Your task to perform on an android device: change notifications settings Image 0: 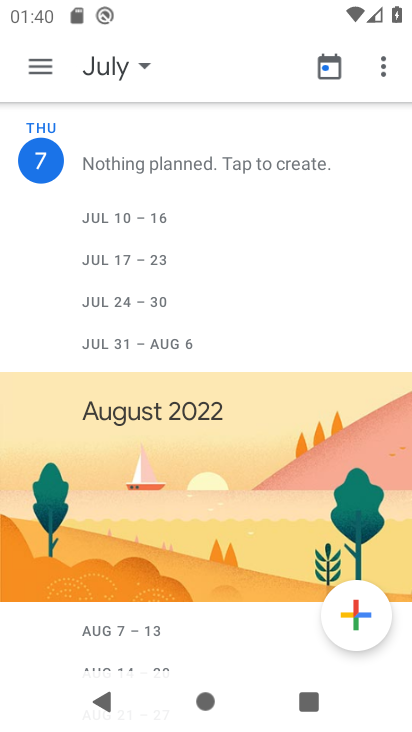
Step 0: press home button
Your task to perform on an android device: change notifications settings Image 1: 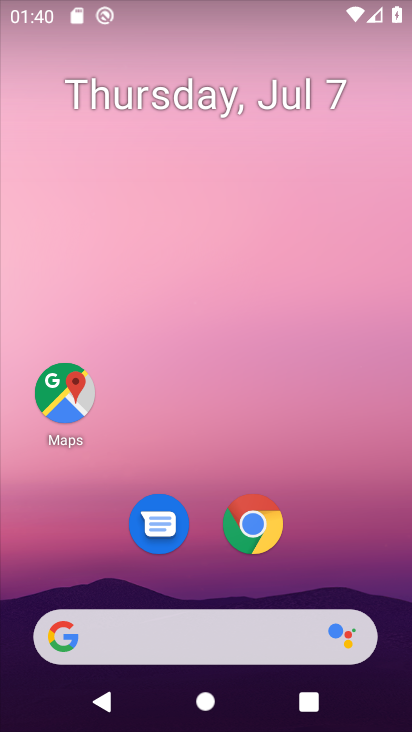
Step 1: drag from (318, 563) to (335, 43)
Your task to perform on an android device: change notifications settings Image 2: 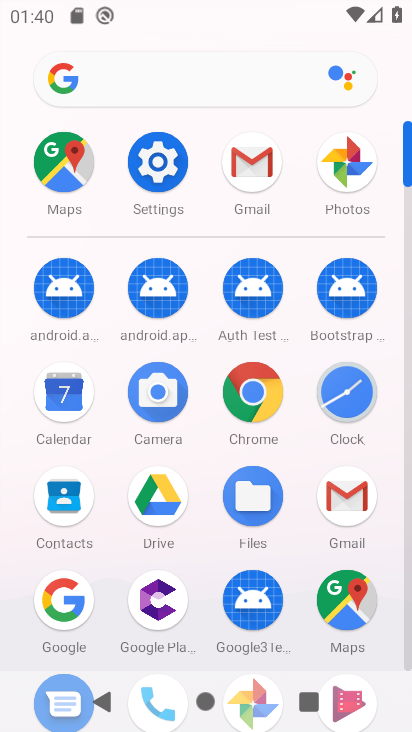
Step 2: click (161, 163)
Your task to perform on an android device: change notifications settings Image 3: 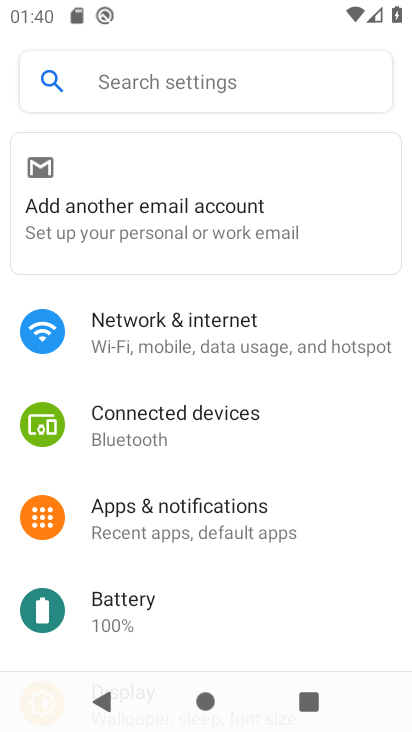
Step 3: click (170, 515)
Your task to perform on an android device: change notifications settings Image 4: 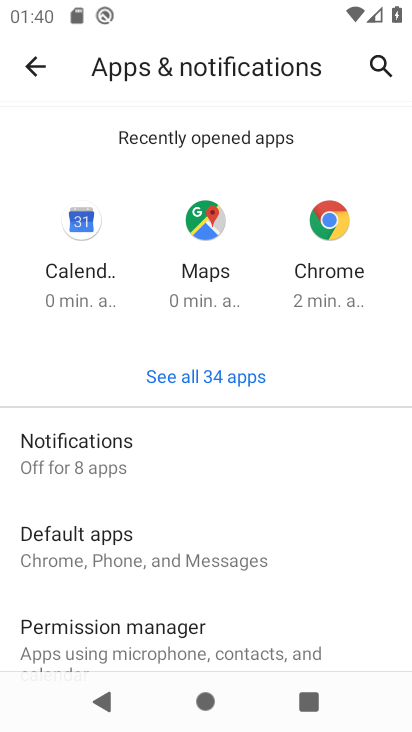
Step 4: click (112, 445)
Your task to perform on an android device: change notifications settings Image 5: 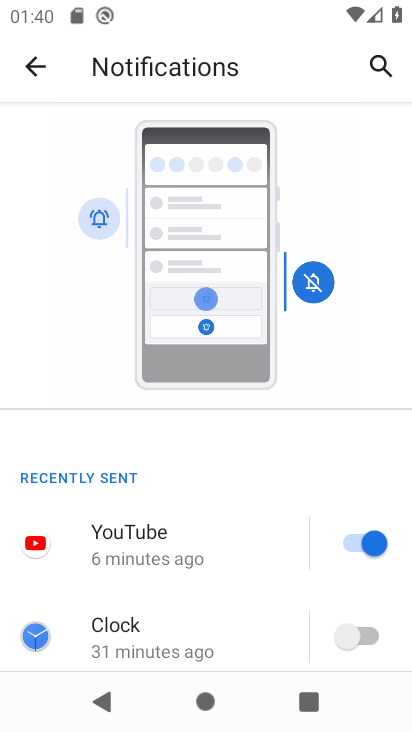
Step 5: drag from (242, 594) to (262, 214)
Your task to perform on an android device: change notifications settings Image 6: 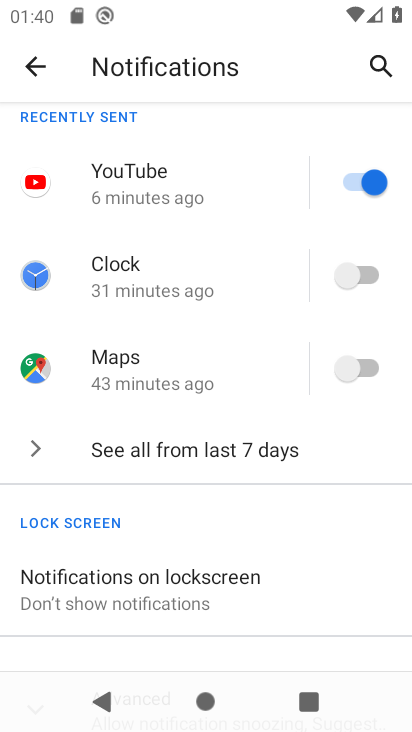
Step 6: click (253, 450)
Your task to perform on an android device: change notifications settings Image 7: 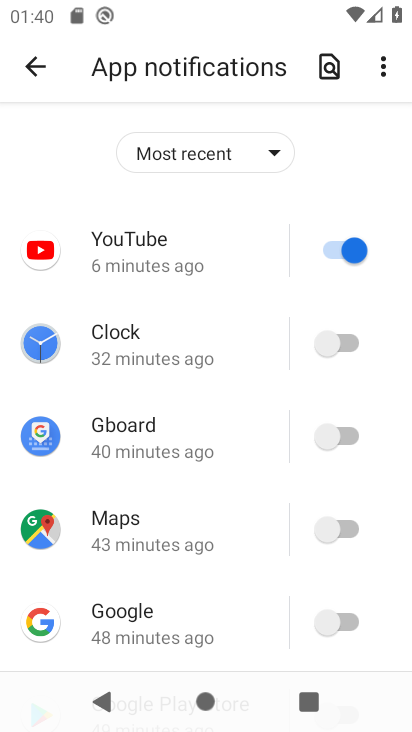
Step 7: click (343, 241)
Your task to perform on an android device: change notifications settings Image 8: 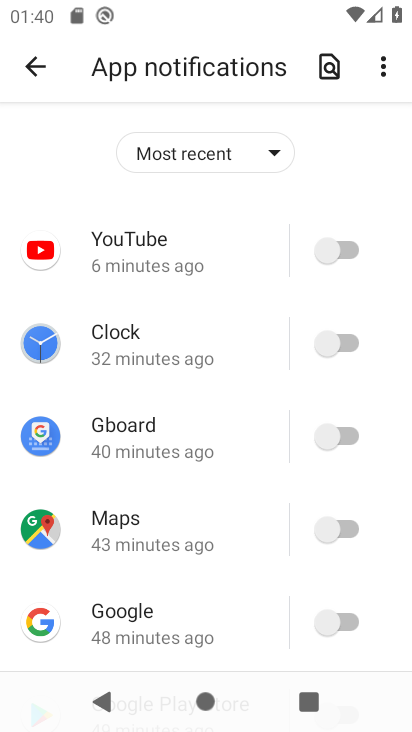
Step 8: click (335, 340)
Your task to perform on an android device: change notifications settings Image 9: 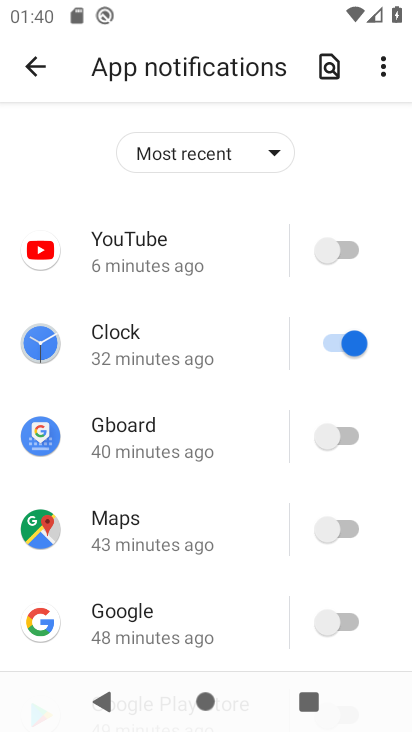
Step 9: click (333, 438)
Your task to perform on an android device: change notifications settings Image 10: 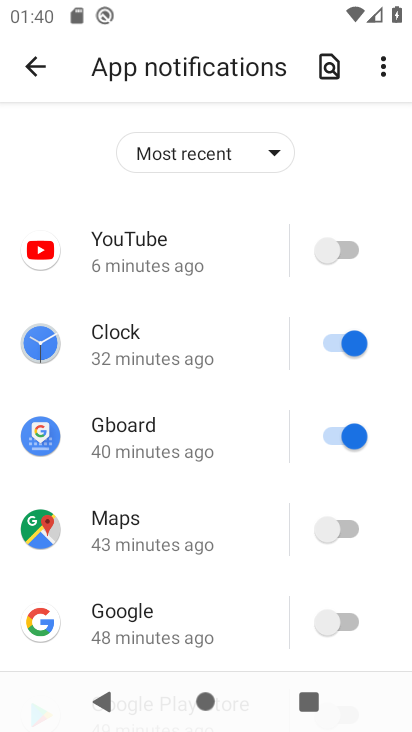
Step 10: click (340, 520)
Your task to perform on an android device: change notifications settings Image 11: 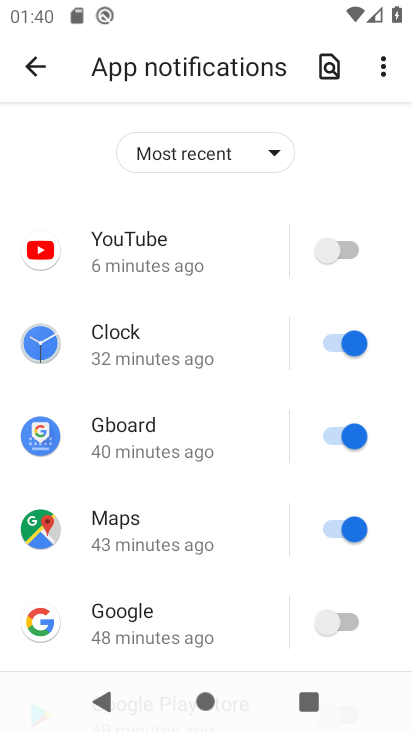
Step 11: click (343, 625)
Your task to perform on an android device: change notifications settings Image 12: 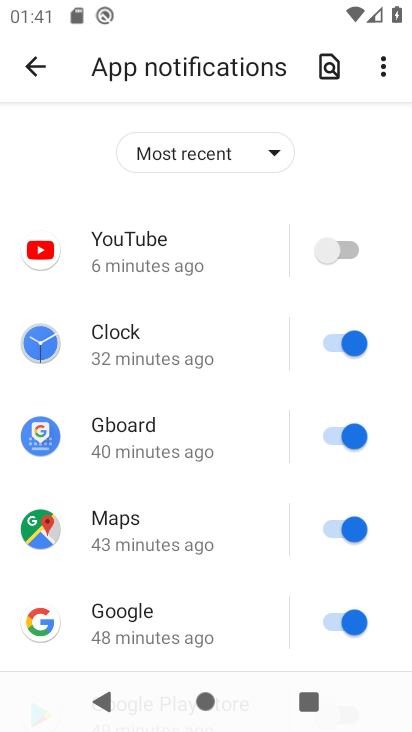
Step 12: drag from (234, 580) to (215, 108)
Your task to perform on an android device: change notifications settings Image 13: 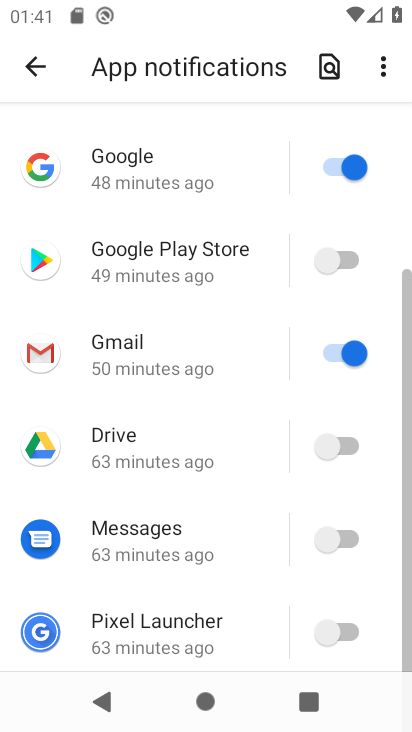
Step 13: click (343, 251)
Your task to perform on an android device: change notifications settings Image 14: 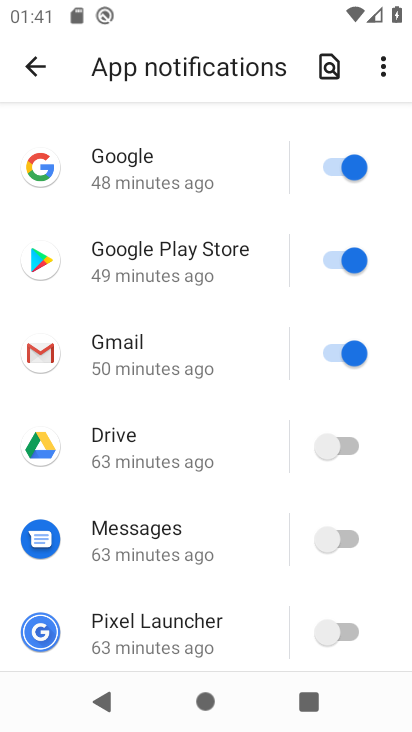
Step 14: click (345, 351)
Your task to perform on an android device: change notifications settings Image 15: 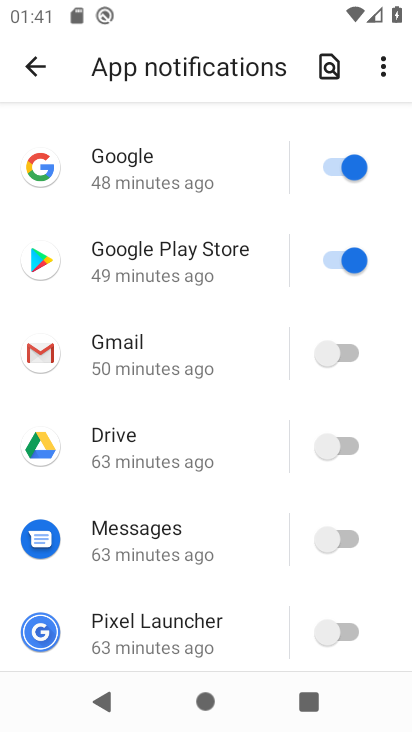
Step 15: click (327, 434)
Your task to perform on an android device: change notifications settings Image 16: 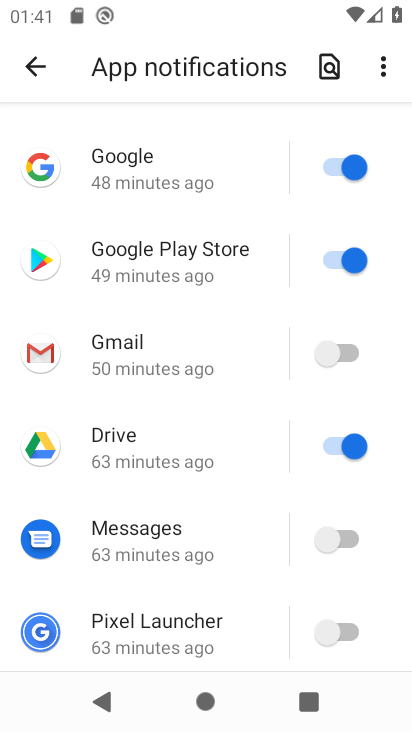
Step 16: click (339, 542)
Your task to perform on an android device: change notifications settings Image 17: 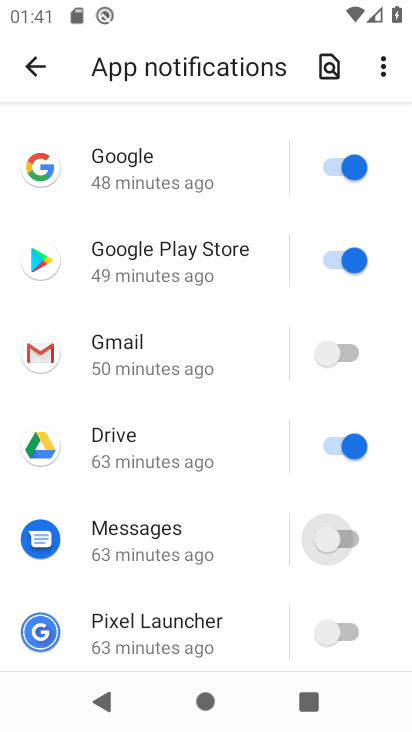
Step 17: click (338, 626)
Your task to perform on an android device: change notifications settings Image 18: 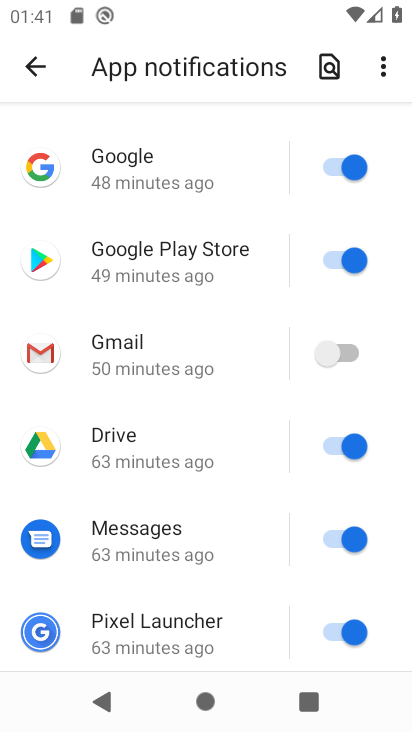
Step 18: task complete